Your task to perform on an android device: Open ESPN.com Image 0: 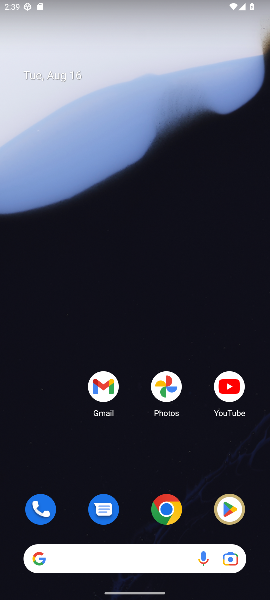
Step 0: drag from (148, 445) to (186, 15)
Your task to perform on an android device: Open ESPN.com Image 1: 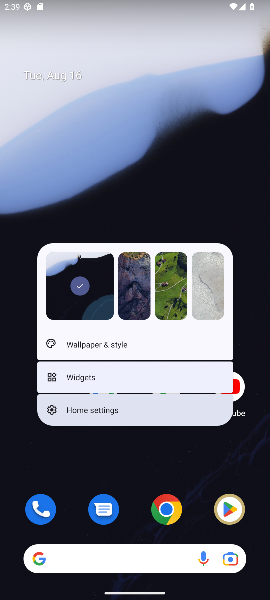
Step 1: click (217, 177)
Your task to perform on an android device: Open ESPN.com Image 2: 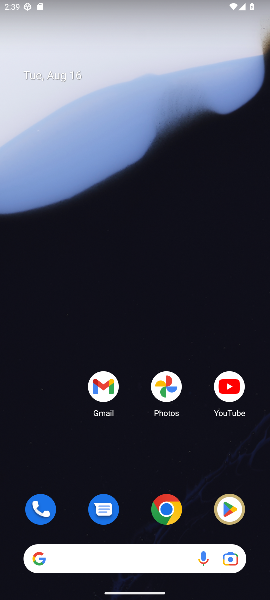
Step 2: drag from (128, 470) to (125, 0)
Your task to perform on an android device: Open ESPN.com Image 3: 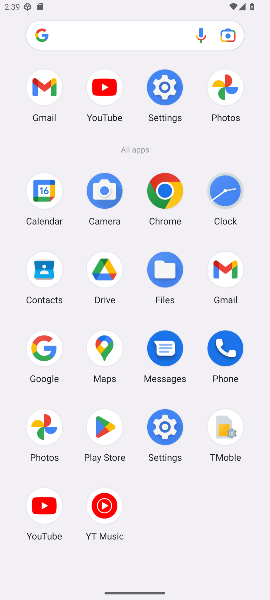
Step 3: click (162, 190)
Your task to perform on an android device: Open ESPN.com Image 4: 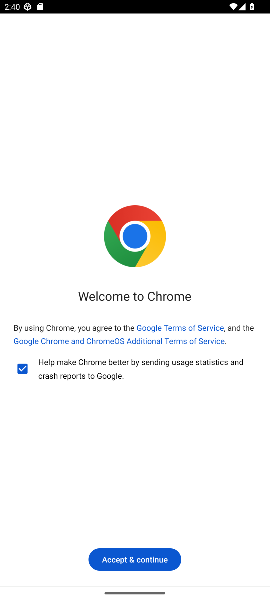
Step 4: click (134, 556)
Your task to perform on an android device: Open ESPN.com Image 5: 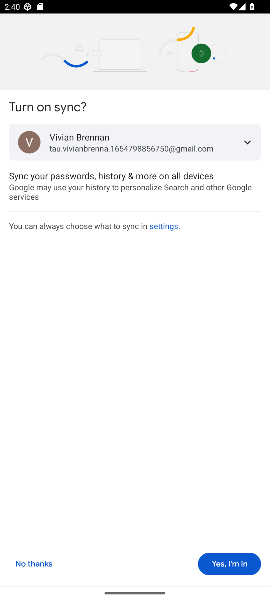
Step 5: click (245, 557)
Your task to perform on an android device: Open ESPN.com Image 6: 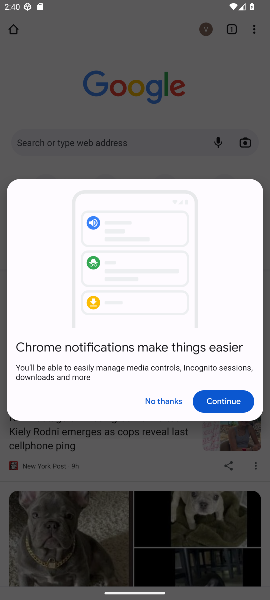
Step 6: click (165, 400)
Your task to perform on an android device: Open ESPN.com Image 7: 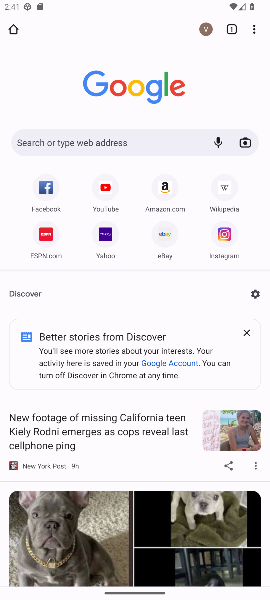
Step 7: click (44, 235)
Your task to perform on an android device: Open ESPN.com Image 8: 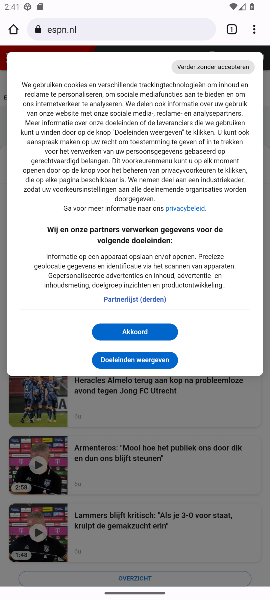
Step 8: task complete